Your task to perform on an android device: change alarm snooze length Image 0: 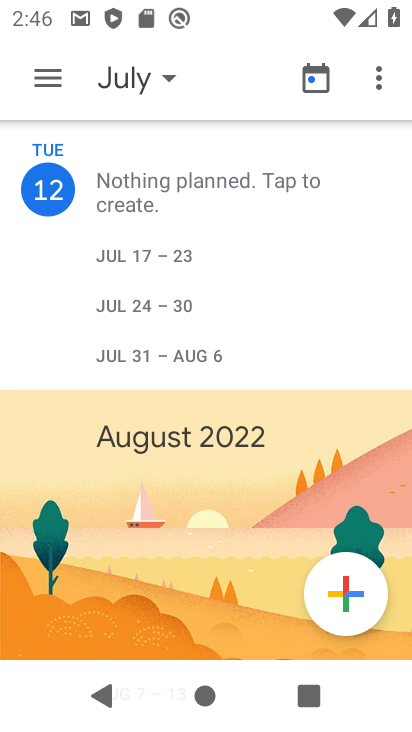
Step 0: press home button
Your task to perform on an android device: change alarm snooze length Image 1: 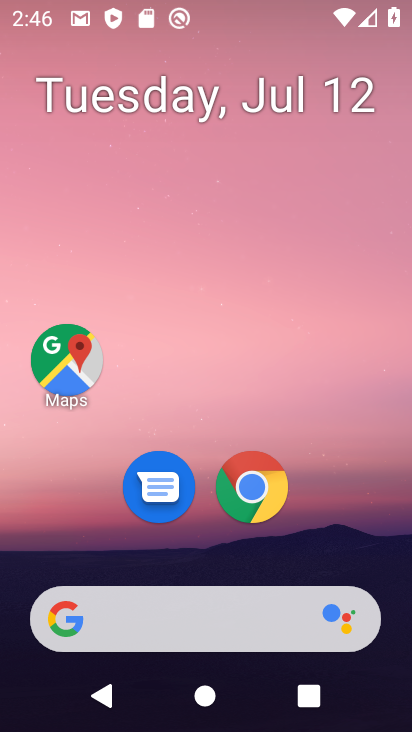
Step 1: drag from (282, 620) to (314, 161)
Your task to perform on an android device: change alarm snooze length Image 2: 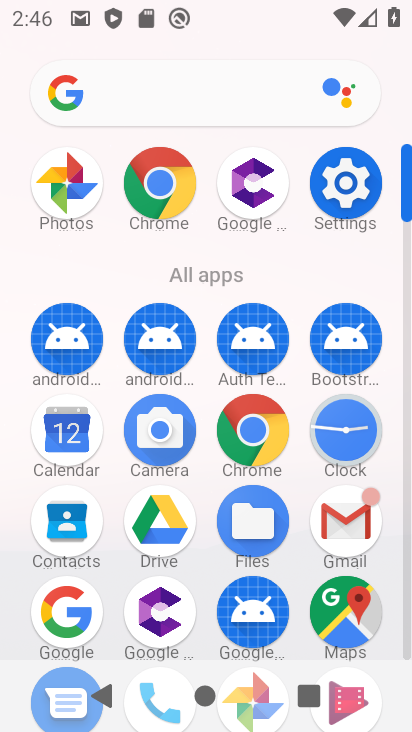
Step 2: click (335, 441)
Your task to perform on an android device: change alarm snooze length Image 3: 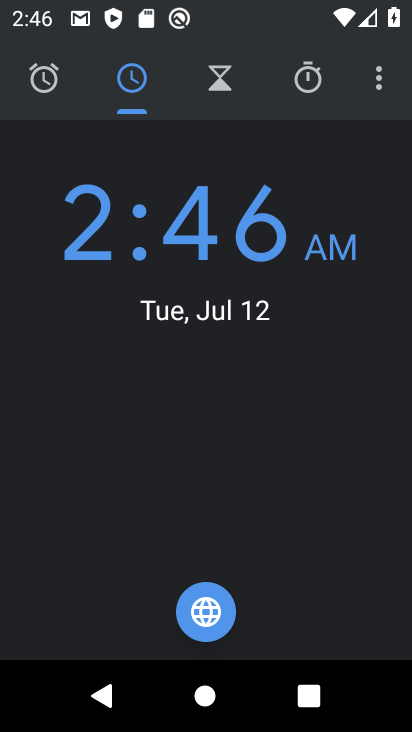
Step 3: click (385, 80)
Your task to perform on an android device: change alarm snooze length Image 4: 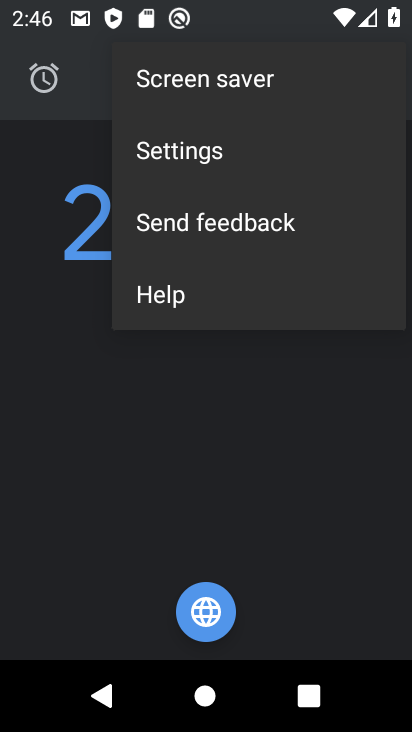
Step 4: click (221, 158)
Your task to perform on an android device: change alarm snooze length Image 5: 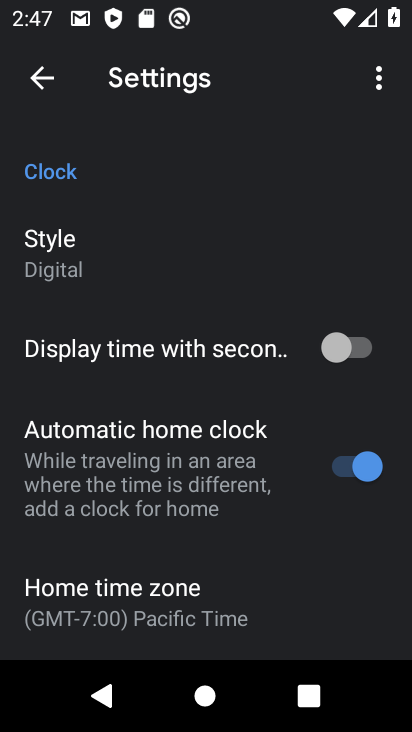
Step 5: drag from (137, 352) to (146, 234)
Your task to perform on an android device: change alarm snooze length Image 6: 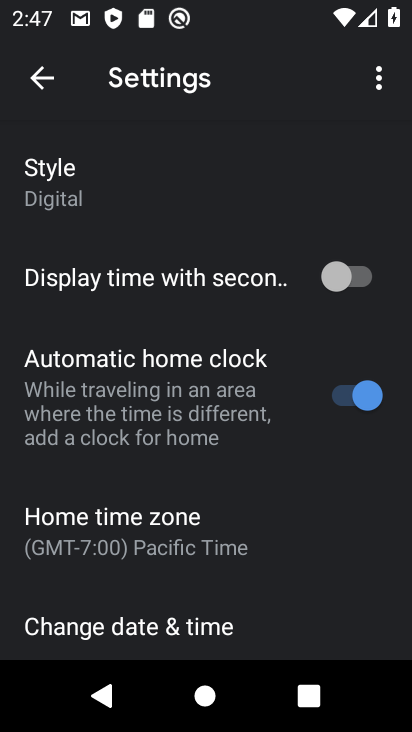
Step 6: drag from (238, 607) to (249, 119)
Your task to perform on an android device: change alarm snooze length Image 7: 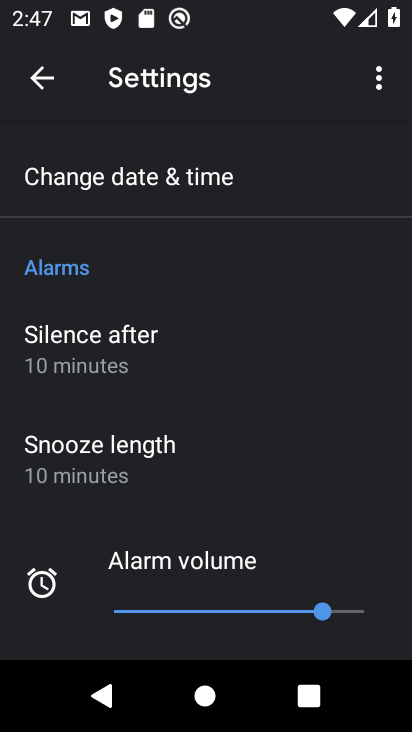
Step 7: drag from (169, 505) to (208, 104)
Your task to perform on an android device: change alarm snooze length Image 8: 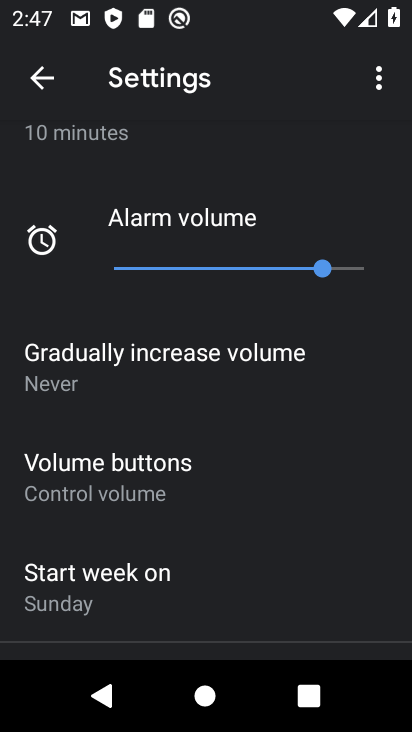
Step 8: drag from (137, 514) to (210, 123)
Your task to perform on an android device: change alarm snooze length Image 9: 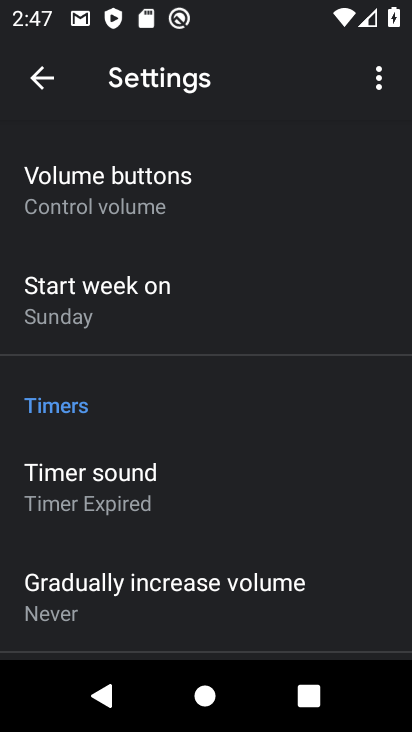
Step 9: drag from (133, 498) to (177, 226)
Your task to perform on an android device: change alarm snooze length Image 10: 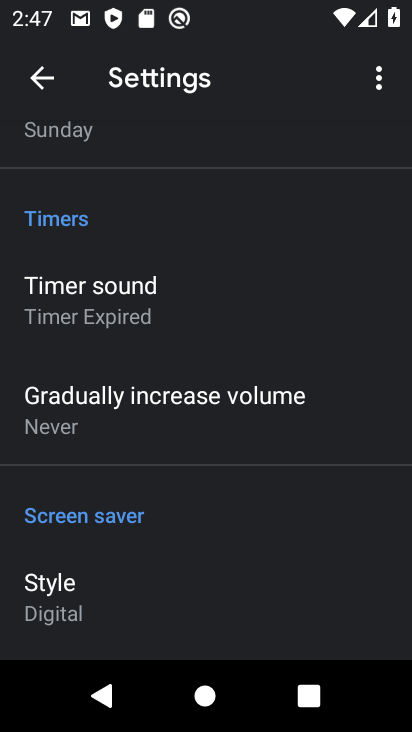
Step 10: drag from (148, 578) to (189, 247)
Your task to perform on an android device: change alarm snooze length Image 11: 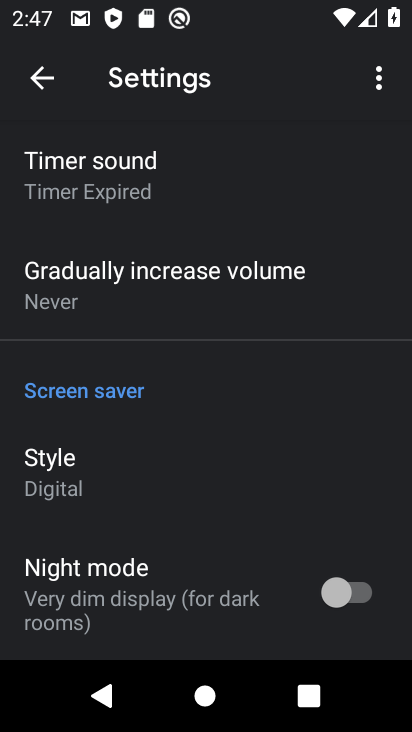
Step 11: drag from (157, 509) to (221, 528)
Your task to perform on an android device: change alarm snooze length Image 12: 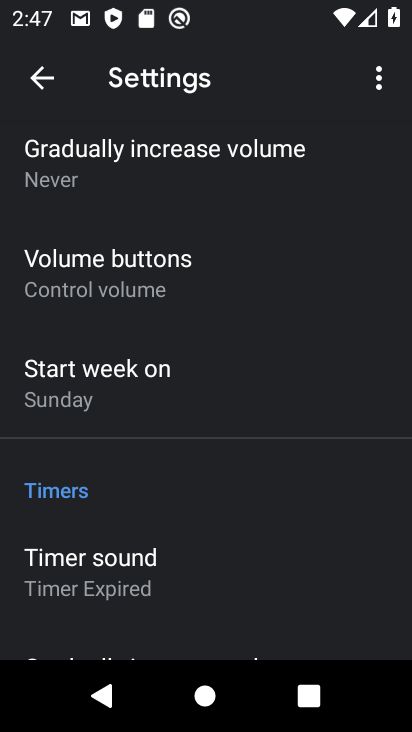
Step 12: drag from (205, 339) to (175, 574)
Your task to perform on an android device: change alarm snooze length Image 13: 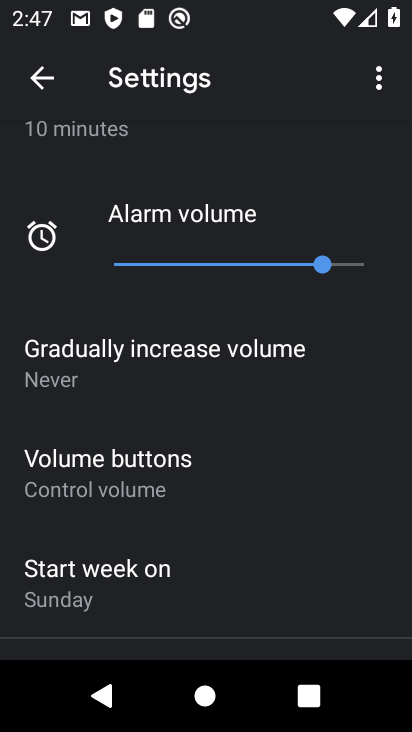
Step 13: drag from (173, 327) to (174, 553)
Your task to perform on an android device: change alarm snooze length Image 14: 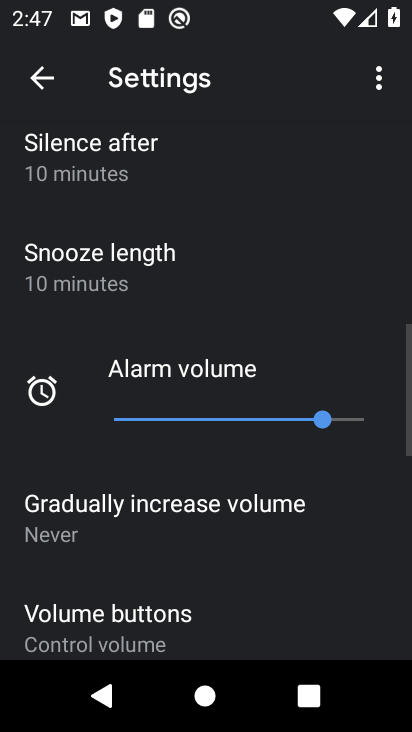
Step 14: click (158, 261)
Your task to perform on an android device: change alarm snooze length Image 15: 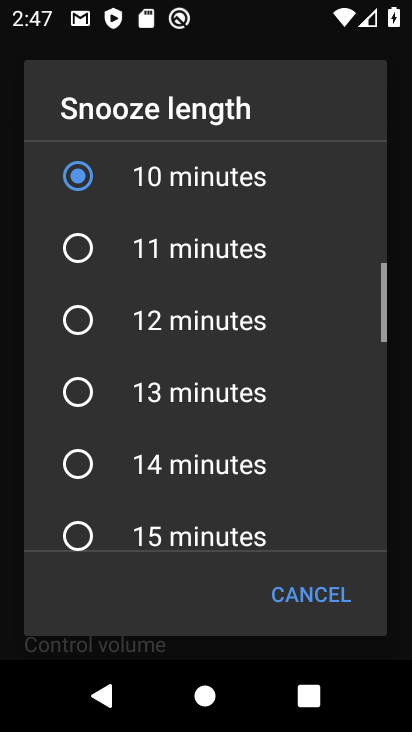
Step 15: click (149, 246)
Your task to perform on an android device: change alarm snooze length Image 16: 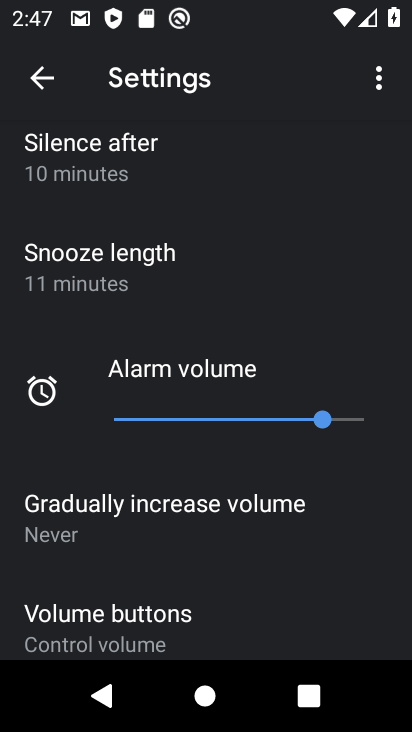
Step 16: task complete